Your task to perform on an android device: Open the calendar and show me this week's events Image 0: 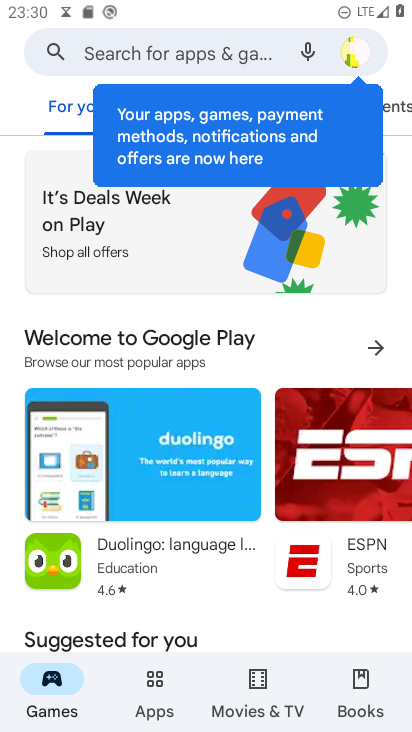
Step 0: press home button
Your task to perform on an android device: Open the calendar and show me this week's events Image 1: 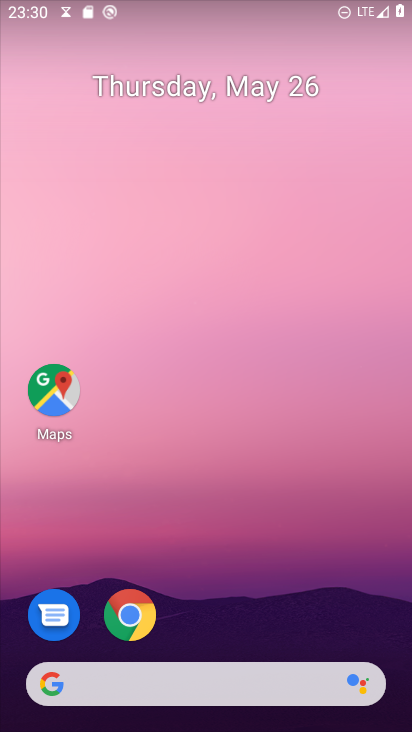
Step 1: drag from (250, 548) to (293, 262)
Your task to perform on an android device: Open the calendar and show me this week's events Image 2: 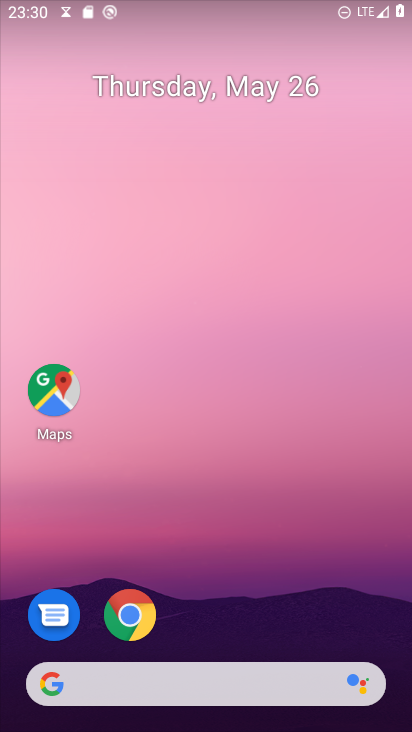
Step 2: drag from (237, 547) to (288, 280)
Your task to perform on an android device: Open the calendar and show me this week's events Image 3: 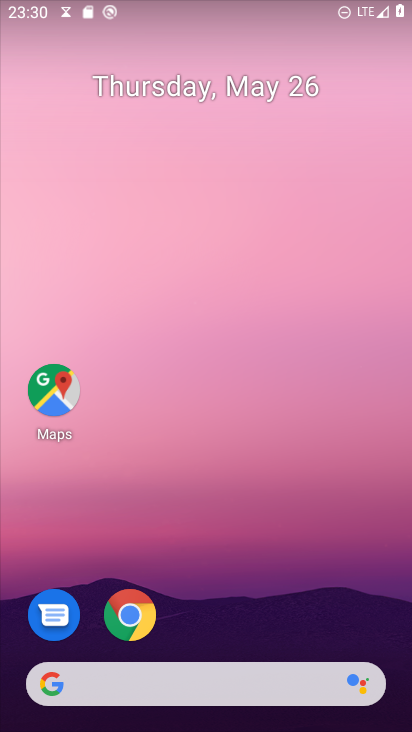
Step 3: drag from (195, 611) to (285, 241)
Your task to perform on an android device: Open the calendar and show me this week's events Image 4: 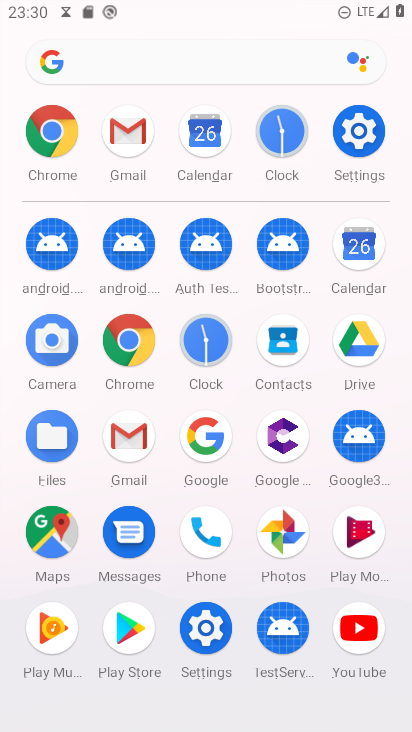
Step 4: click (361, 234)
Your task to perform on an android device: Open the calendar and show me this week's events Image 5: 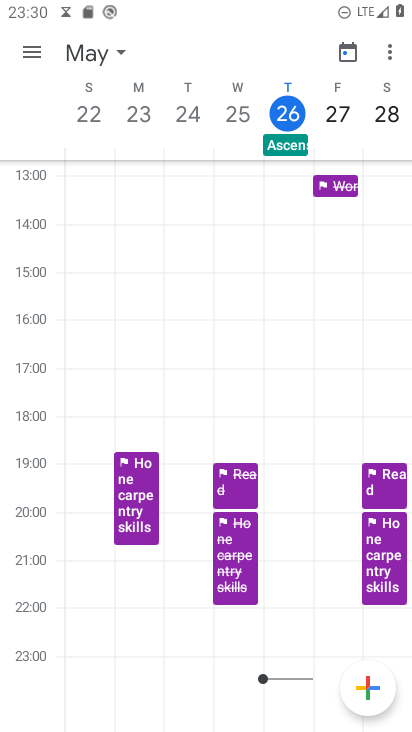
Step 5: click (35, 47)
Your task to perform on an android device: Open the calendar and show me this week's events Image 6: 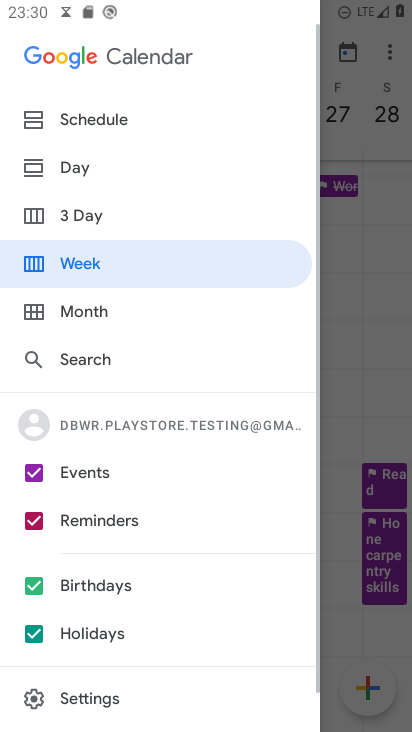
Step 6: click (81, 478)
Your task to perform on an android device: Open the calendar and show me this week's events Image 7: 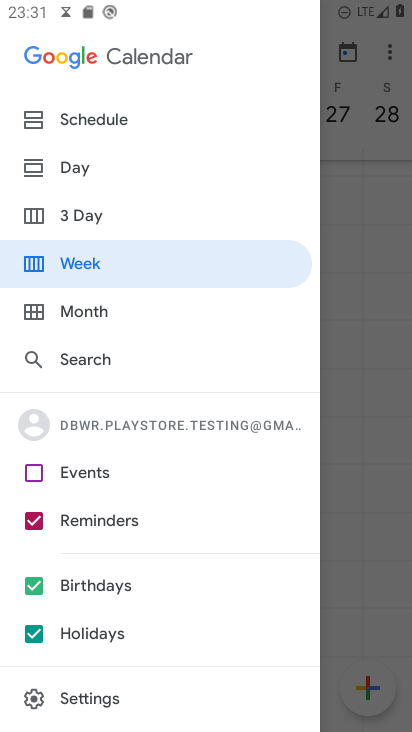
Step 7: task complete